Your task to perform on an android device: Open Reddit.com Image 0: 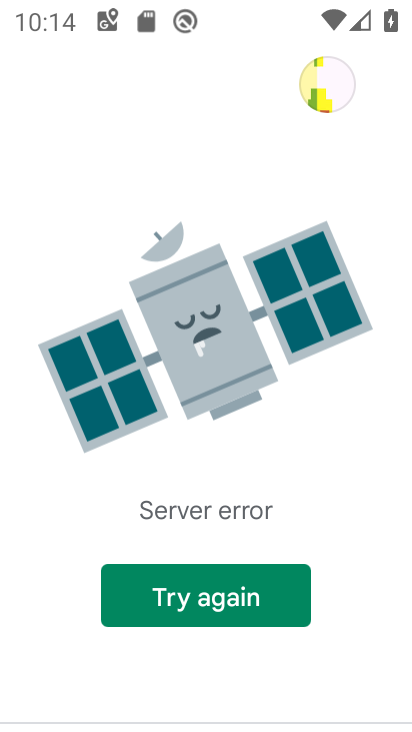
Step 0: press home button
Your task to perform on an android device: Open Reddit.com Image 1: 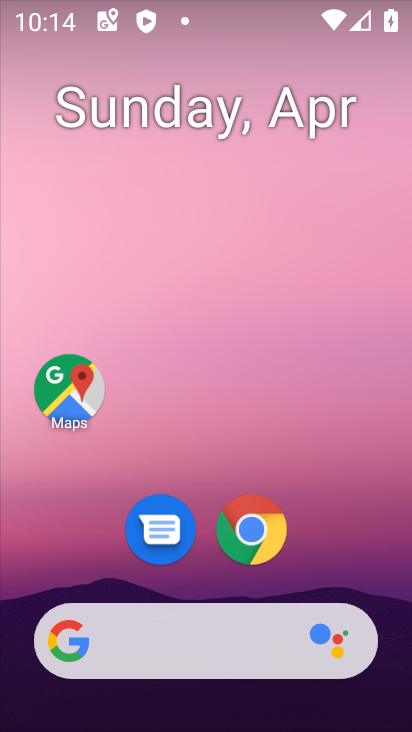
Step 1: click (189, 628)
Your task to perform on an android device: Open Reddit.com Image 2: 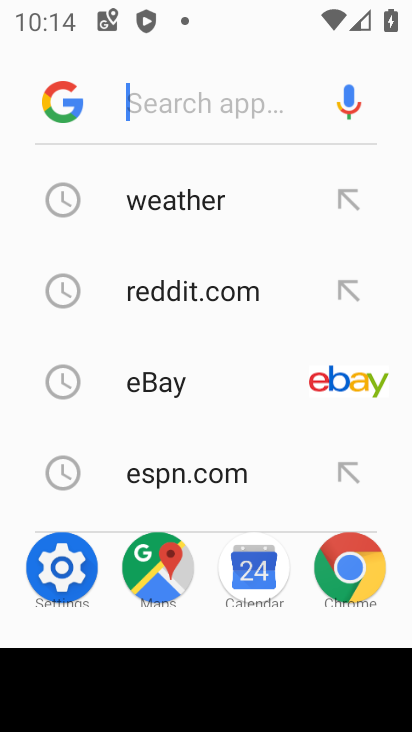
Step 2: click (233, 293)
Your task to perform on an android device: Open Reddit.com Image 3: 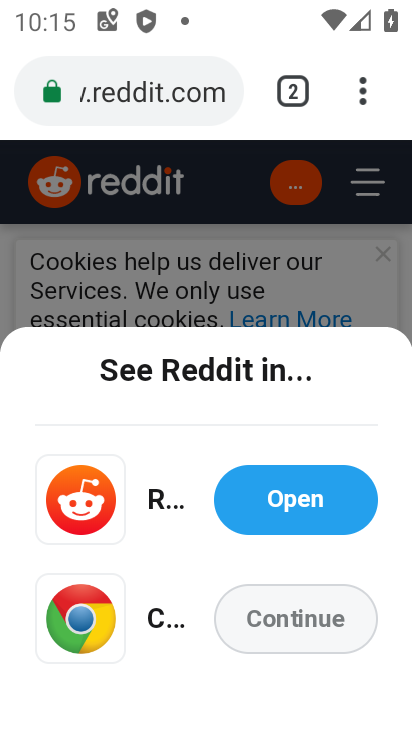
Step 3: click (258, 500)
Your task to perform on an android device: Open Reddit.com Image 4: 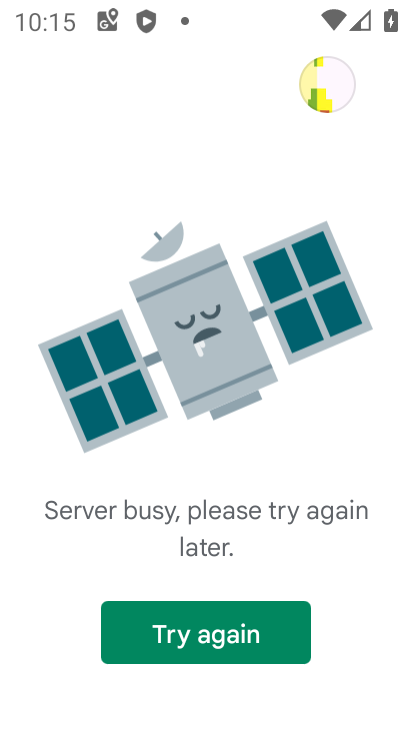
Step 4: task complete